Your task to perform on an android device: change notifications settings Image 0: 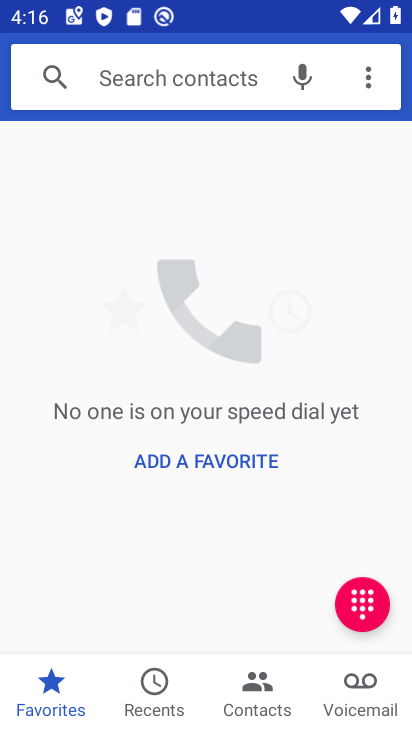
Step 0: press home button
Your task to perform on an android device: change notifications settings Image 1: 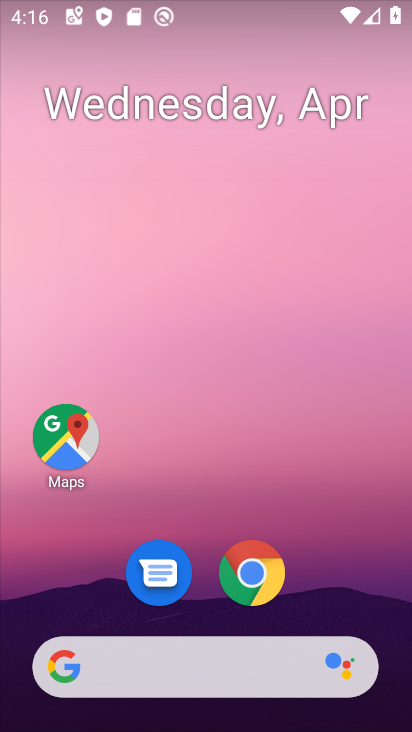
Step 1: drag from (375, 634) to (366, 69)
Your task to perform on an android device: change notifications settings Image 2: 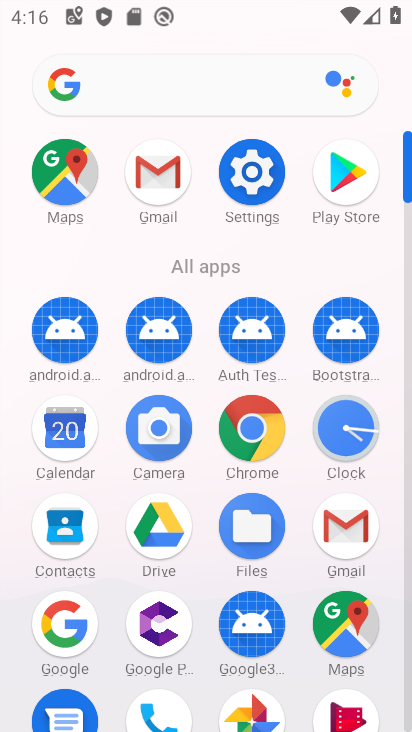
Step 2: click (245, 180)
Your task to perform on an android device: change notifications settings Image 3: 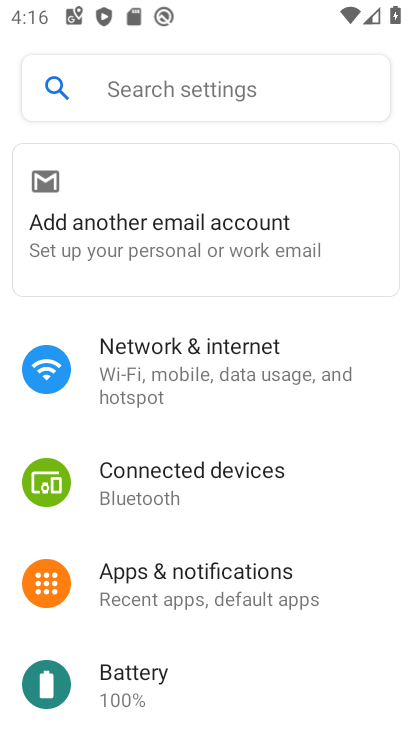
Step 3: click (203, 588)
Your task to perform on an android device: change notifications settings Image 4: 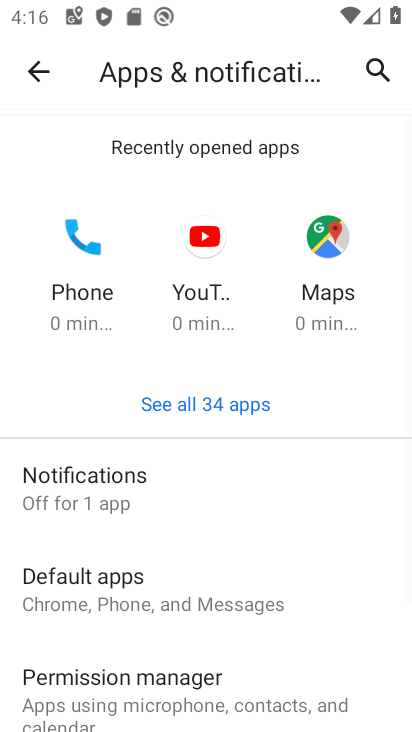
Step 4: click (63, 493)
Your task to perform on an android device: change notifications settings Image 5: 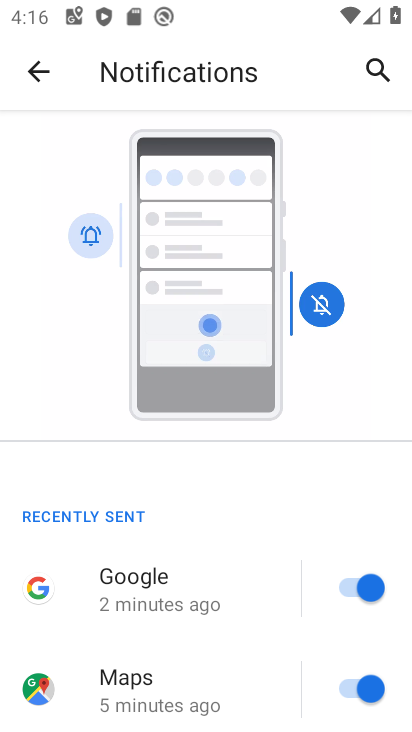
Step 5: drag from (206, 539) to (216, 156)
Your task to perform on an android device: change notifications settings Image 6: 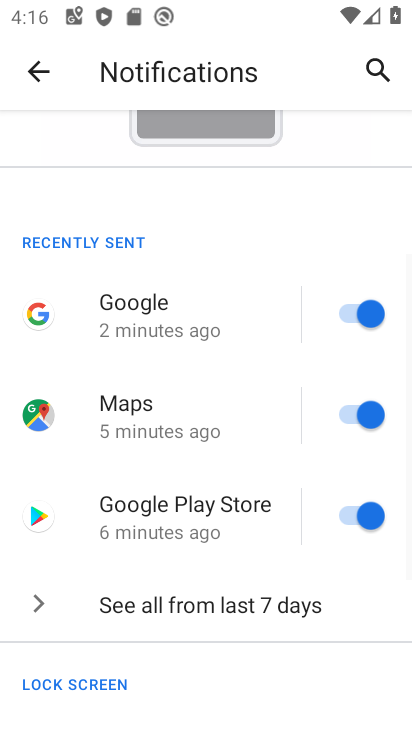
Step 6: drag from (215, 550) to (227, 141)
Your task to perform on an android device: change notifications settings Image 7: 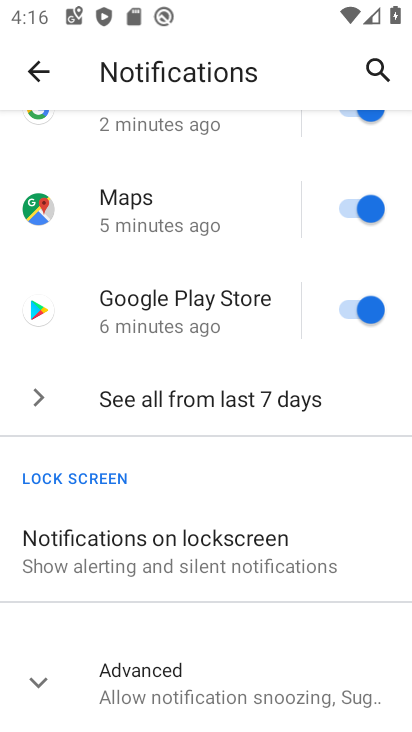
Step 7: click (192, 405)
Your task to perform on an android device: change notifications settings Image 8: 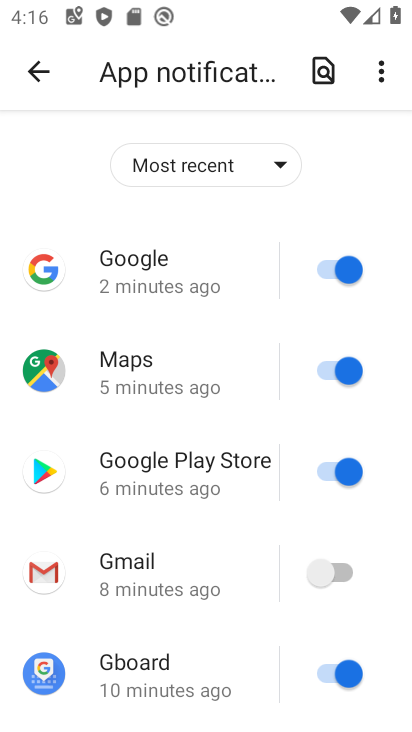
Step 8: click (276, 165)
Your task to perform on an android device: change notifications settings Image 9: 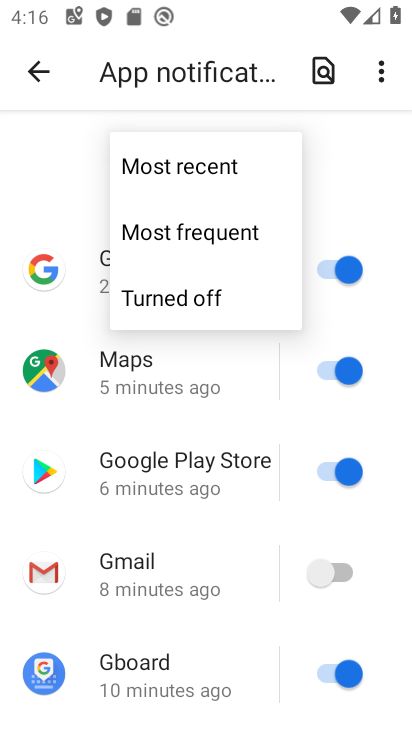
Step 9: click (182, 245)
Your task to perform on an android device: change notifications settings Image 10: 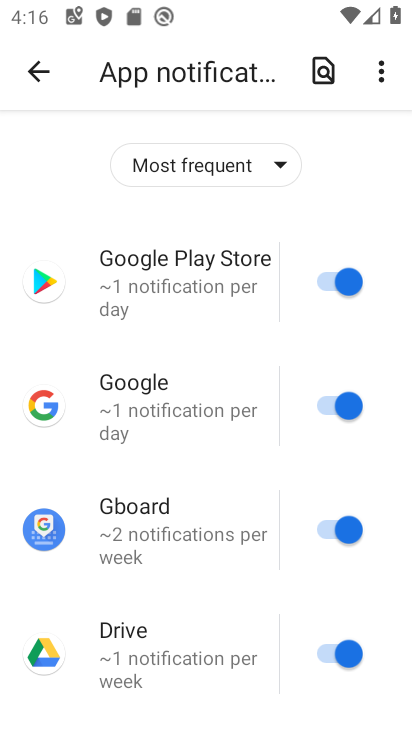
Step 10: task complete